Your task to perform on an android device: find photos in the google photos app Image 0: 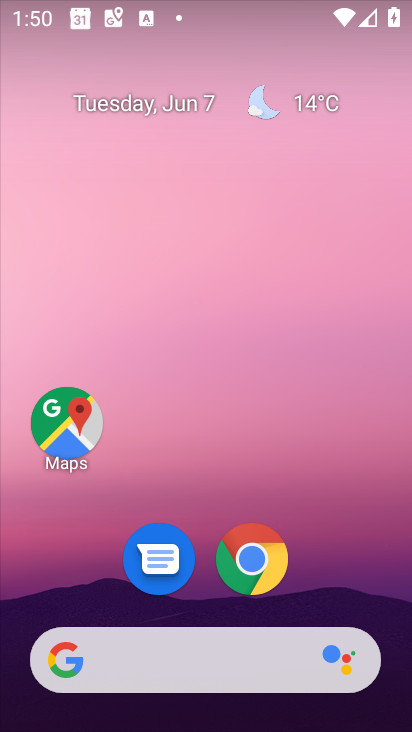
Step 0: drag from (39, 514) to (232, 120)
Your task to perform on an android device: find photos in the google photos app Image 1: 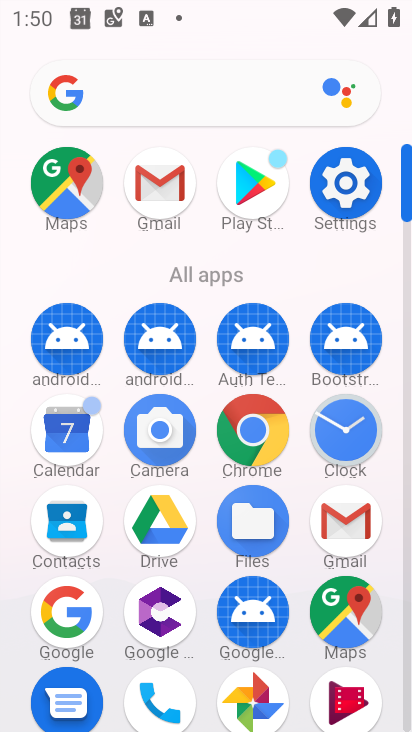
Step 1: click (231, 693)
Your task to perform on an android device: find photos in the google photos app Image 2: 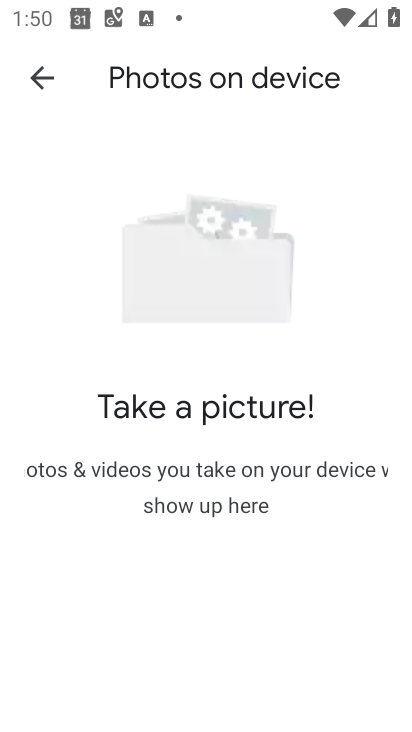
Step 2: press home button
Your task to perform on an android device: find photos in the google photos app Image 3: 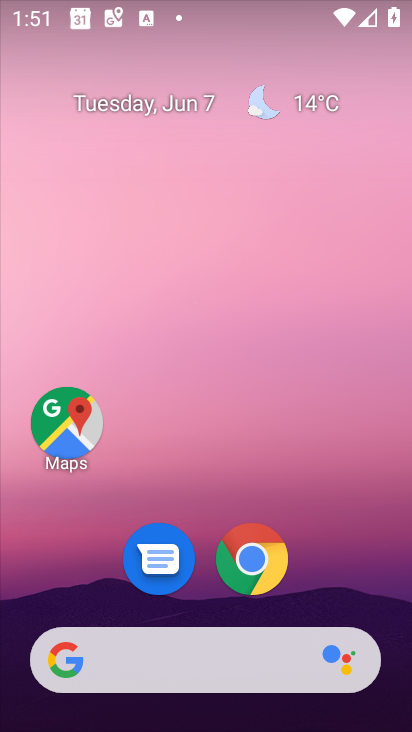
Step 3: drag from (18, 608) to (182, 134)
Your task to perform on an android device: find photos in the google photos app Image 4: 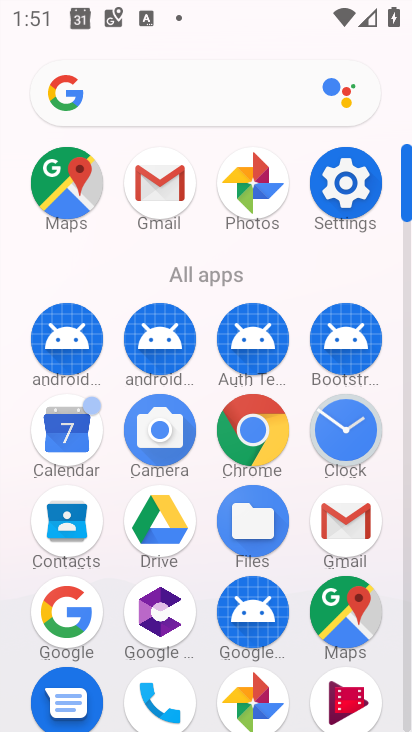
Step 4: click (231, 180)
Your task to perform on an android device: find photos in the google photos app Image 5: 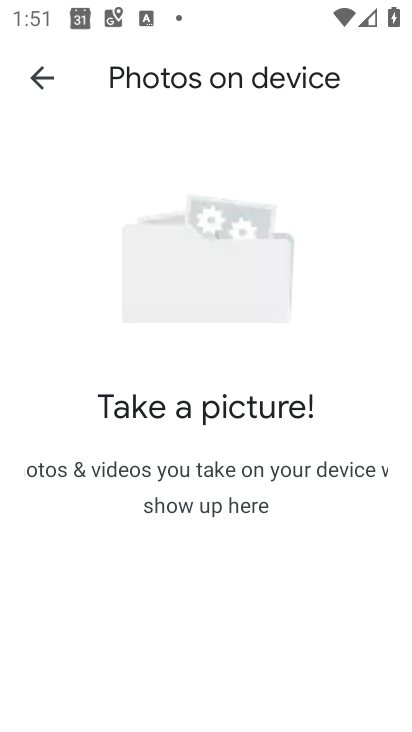
Step 5: click (35, 81)
Your task to perform on an android device: find photos in the google photos app Image 6: 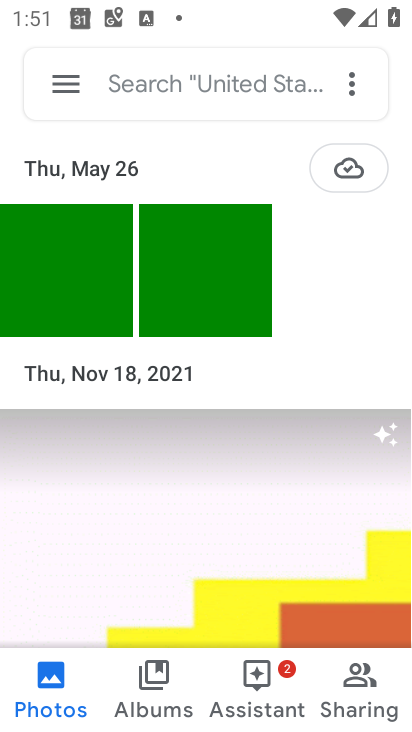
Step 6: task complete